Your task to perform on an android device: Is it going to rain today? Image 0: 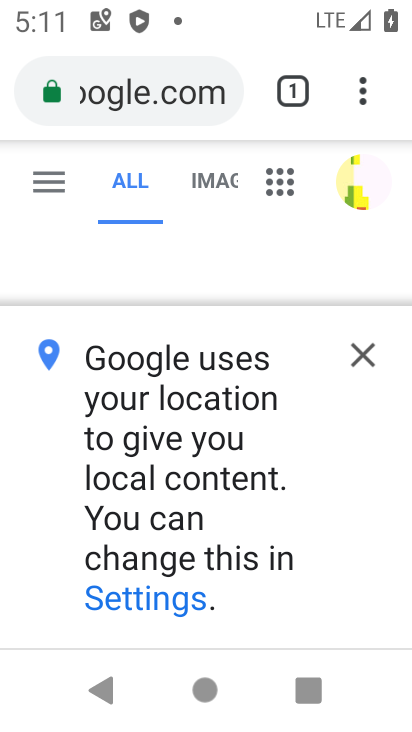
Step 0: press home button
Your task to perform on an android device: Is it going to rain today? Image 1: 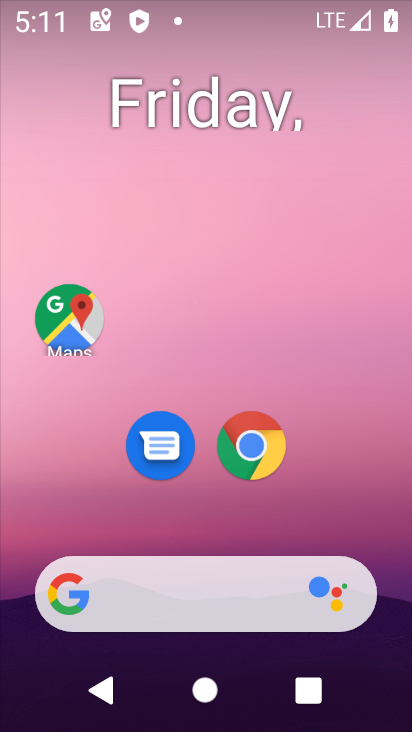
Step 1: click (180, 594)
Your task to perform on an android device: Is it going to rain today? Image 2: 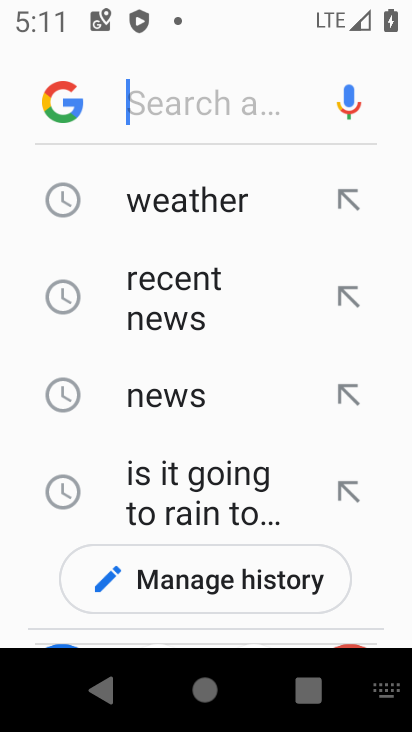
Step 2: click (214, 229)
Your task to perform on an android device: Is it going to rain today? Image 3: 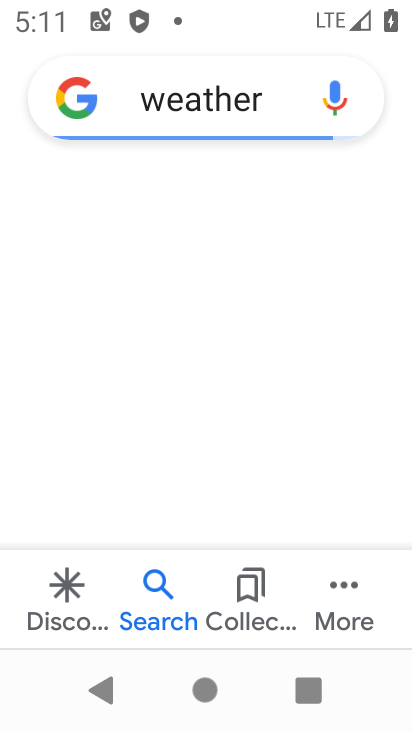
Step 3: task complete